Your task to perform on an android device: Open sound settings Image 0: 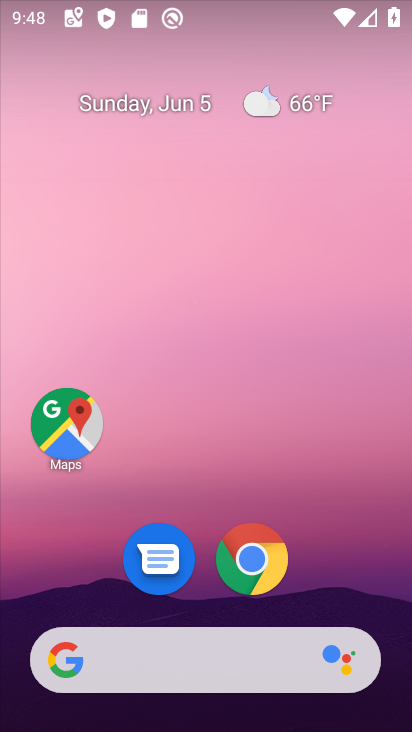
Step 0: drag from (209, 562) to (229, 37)
Your task to perform on an android device: Open sound settings Image 1: 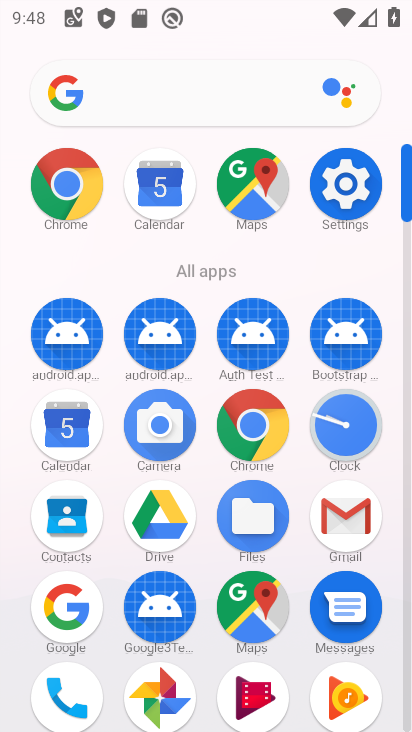
Step 1: click (348, 175)
Your task to perform on an android device: Open sound settings Image 2: 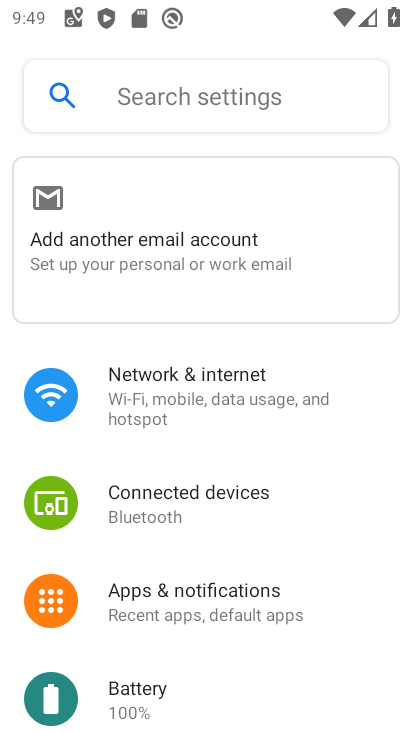
Step 2: drag from (180, 671) to (247, 159)
Your task to perform on an android device: Open sound settings Image 3: 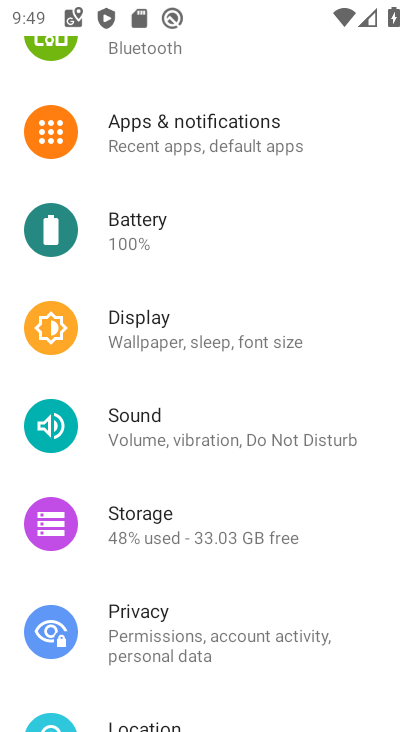
Step 3: click (179, 427)
Your task to perform on an android device: Open sound settings Image 4: 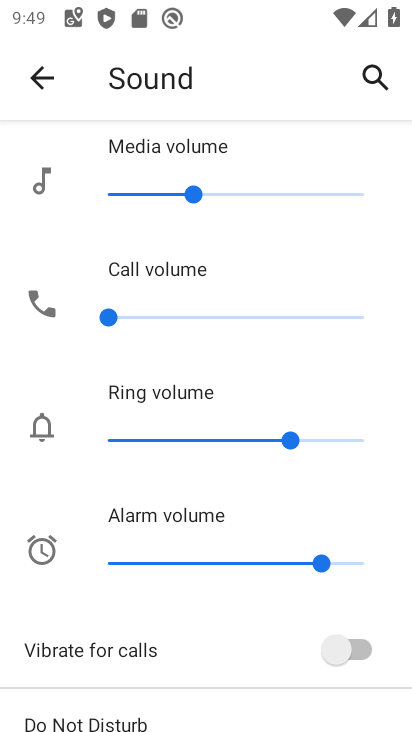
Step 4: drag from (219, 680) to (275, 106)
Your task to perform on an android device: Open sound settings Image 5: 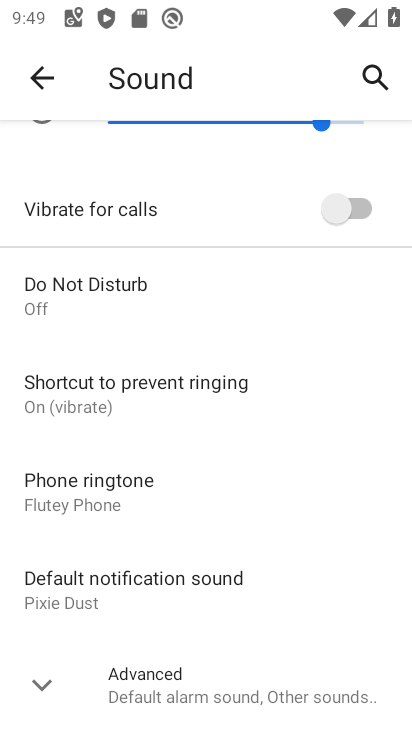
Step 5: click (47, 682)
Your task to perform on an android device: Open sound settings Image 6: 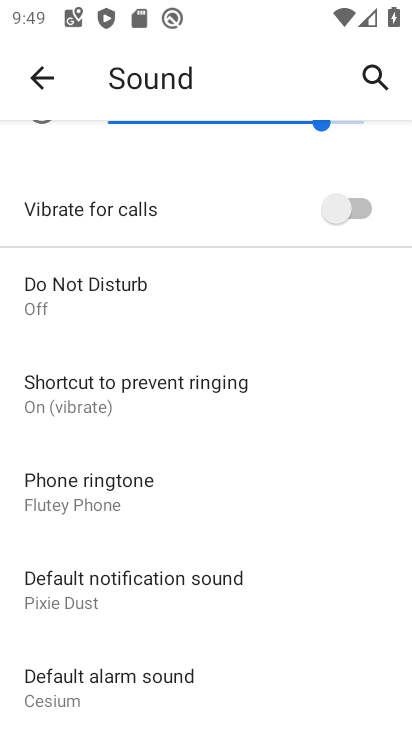
Step 6: task complete